Your task to perform on an android device: turn on sleep mode Image 0: 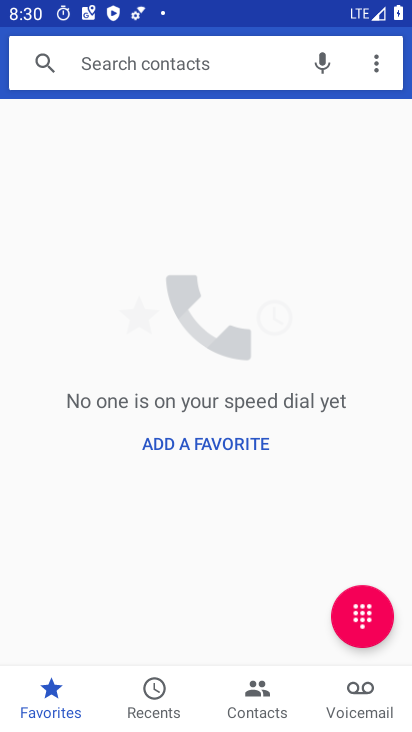
Step 0: press home button
Your task to perform on an android device: turn on sleep mode Image 1: 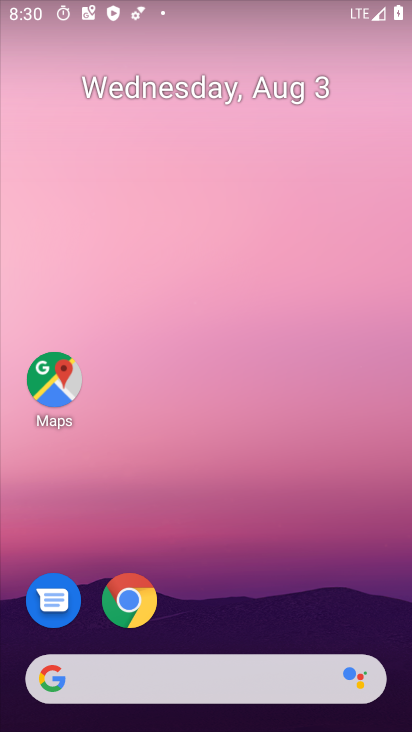
Step 1: drag from (221, 635) to (218, 87)
Your task to perform on an android device: turn on sleep mode Image 2: 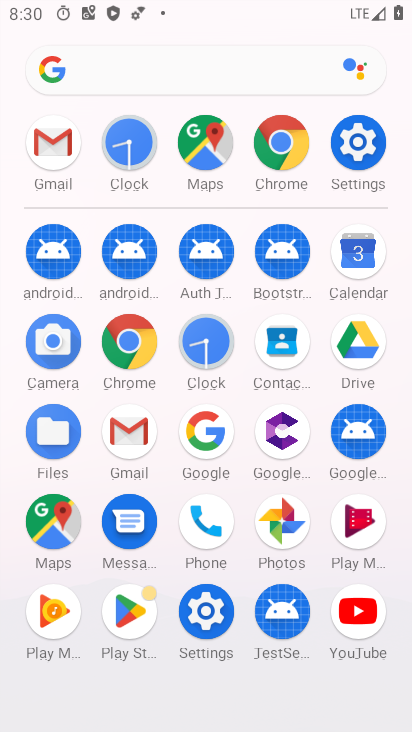
Step 2: click (357, 163)
Your task to perform on an android device: turn on sleep mode Image 3: 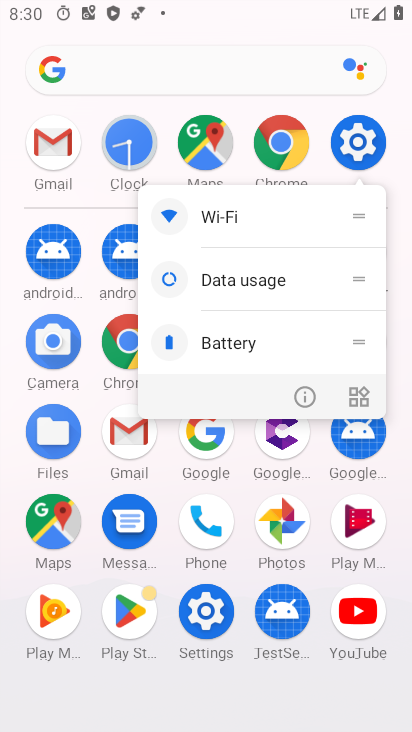
Step 3: click (375, 131)
Your task to perform on an android device: turn on sleep mode Image 4: 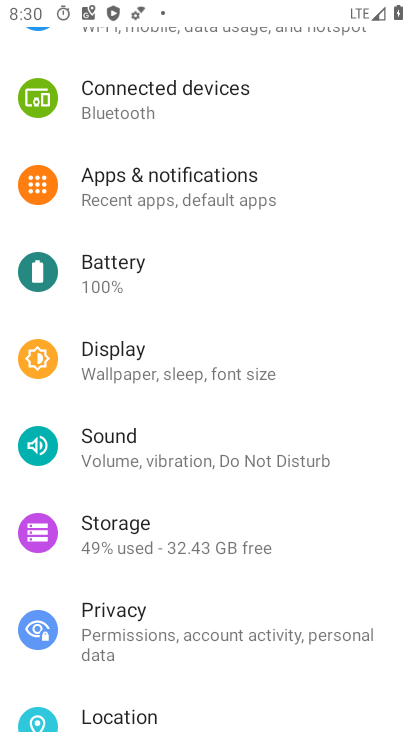
Step 4: drag from (241, 164) to (211, 641)
Your task to perform on an android device: turn on sleep mode Image 5: 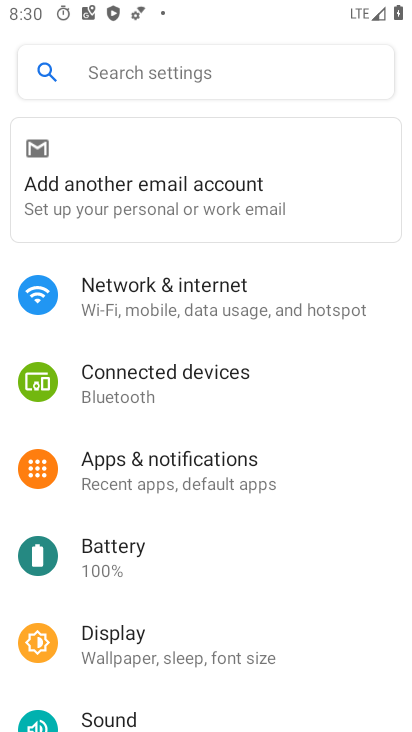
Step 5: click (175, 70)
Your task to perform on an android device: turn on sleep mode Image 6: 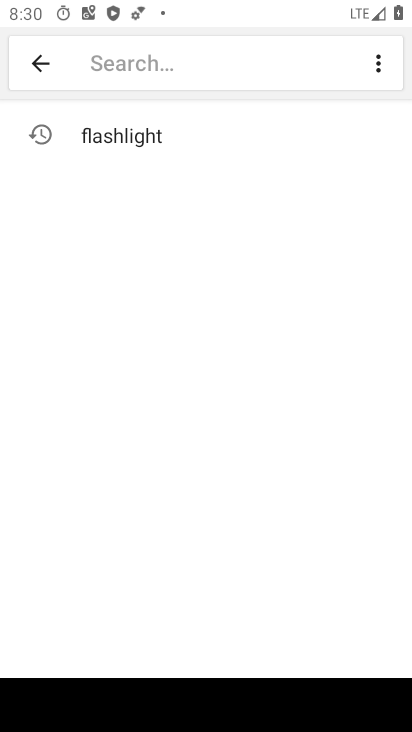
Step 6: type "sleep mode"
Your task to perform on an android device: turn on sleep mode Image 7: 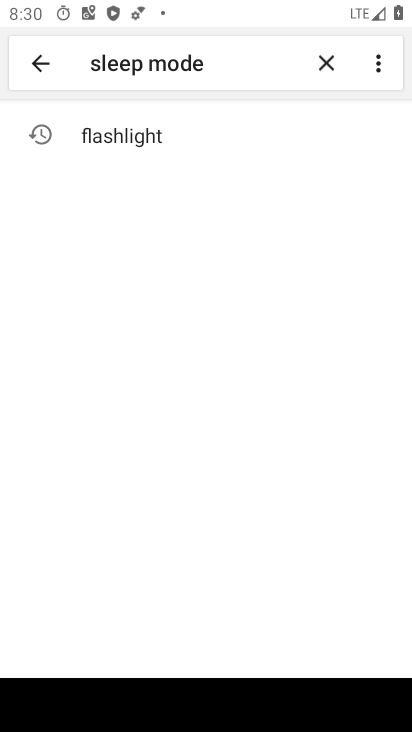
Step 7: click (153, 154)
Your task to perform on an android device: turn on sleep mode Image 8: 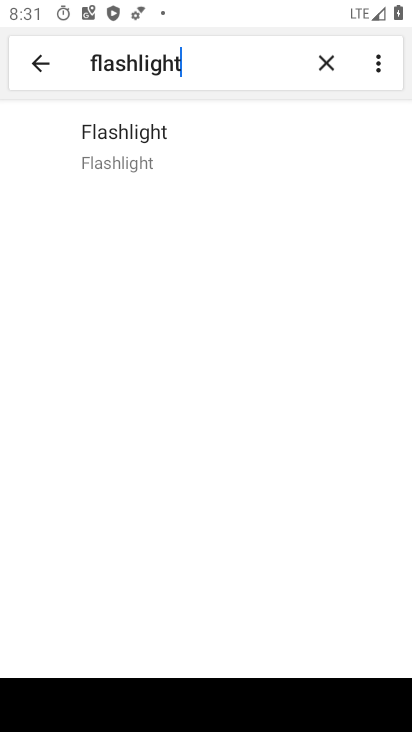
Step 8: click (324, 47)
Your task to perform on an android device: turn on sleep mode Image 9: 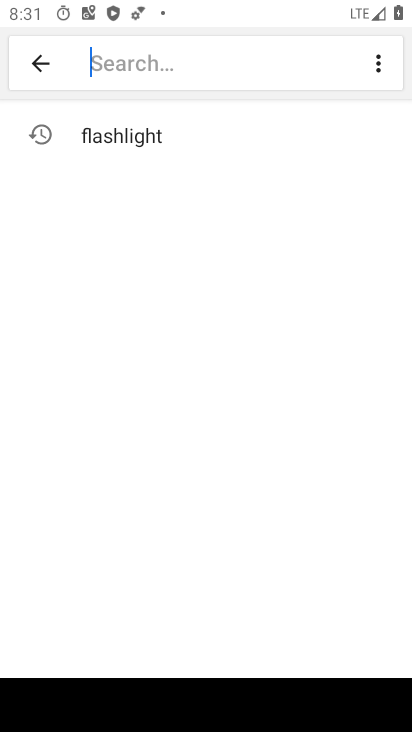
Step 9: type "sleep mode"
Your task to perform on an android device: turn on sleep mode Image 10: 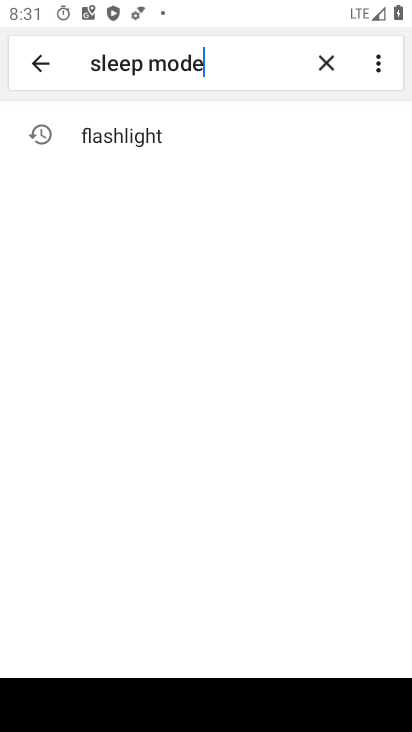
Step 10: click (254, 244)
Your task to perform on an android device: turn on sleep mode Image 11: 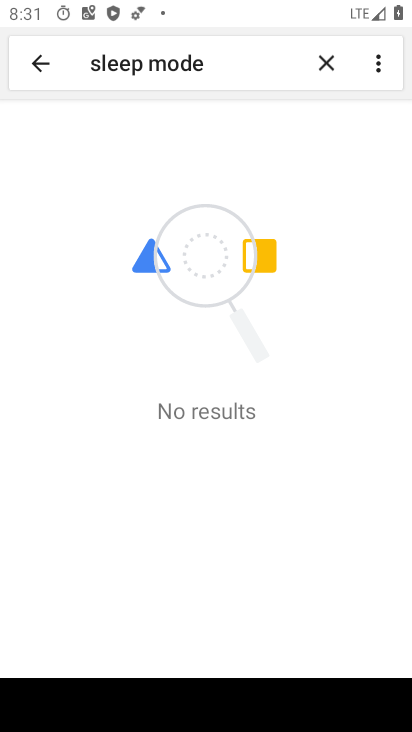
Step 11: task complete